Your task to perform on an android device: change notification settings in the gmail app Image 0: 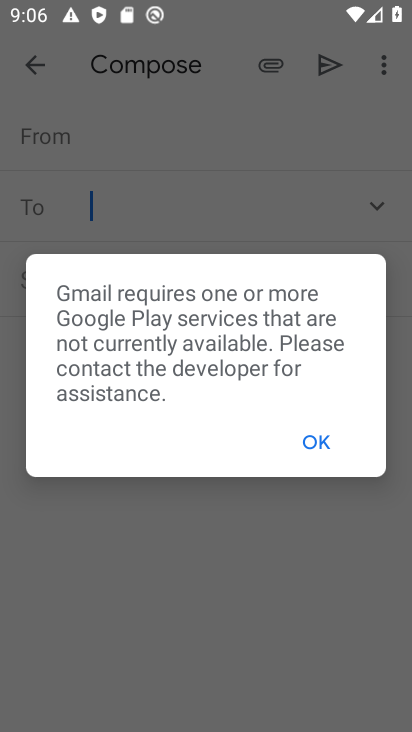
Step 0: press home button
Your task to perform on an android device: change notification settings in the gmail app Image 1: 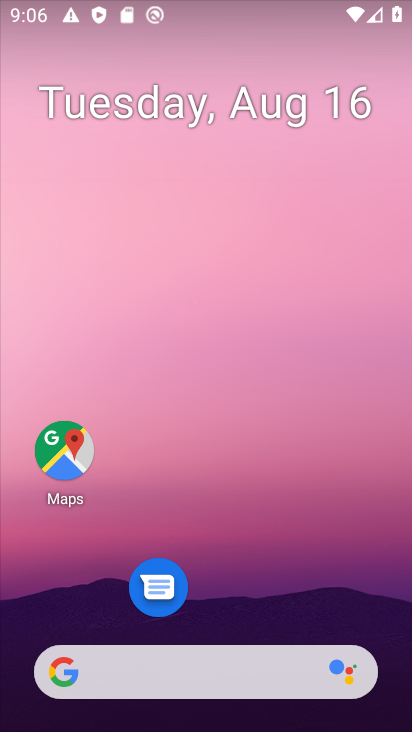
Step 1: drag from (239, 624) to (204, 3)
Your task to perform on an android device: change notification settings in the gmail app Image 2: 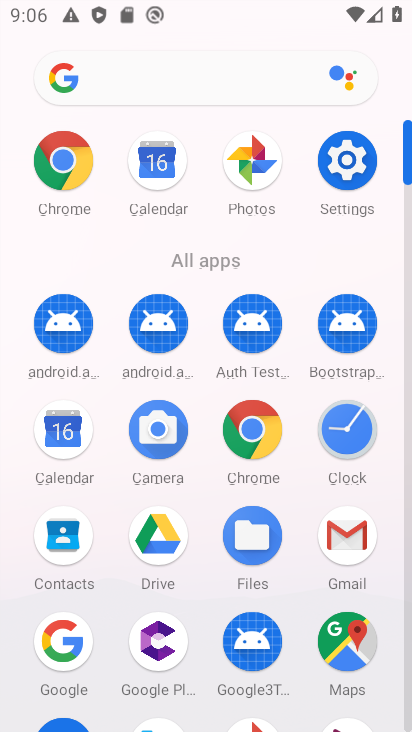
Step 2: click (358, 538)
Your task to perform on an android device: change notification settings in the gmail app Image 3: 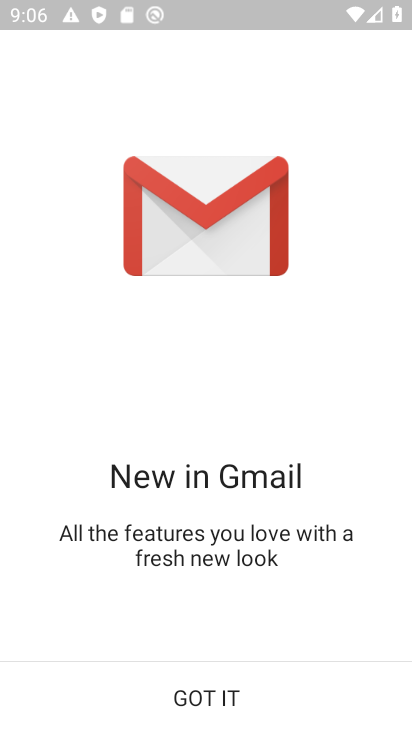
Step 3: click (170, 685)
Your task to perform on an android device: change notification settings in the gmail app Image 4: 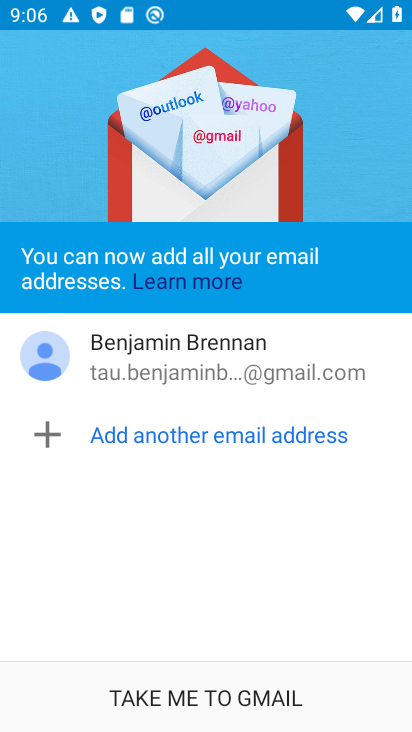
Step 4: click (170, 685)
Your task to perform on an android device: change notification settings in the gmail app Image 5: 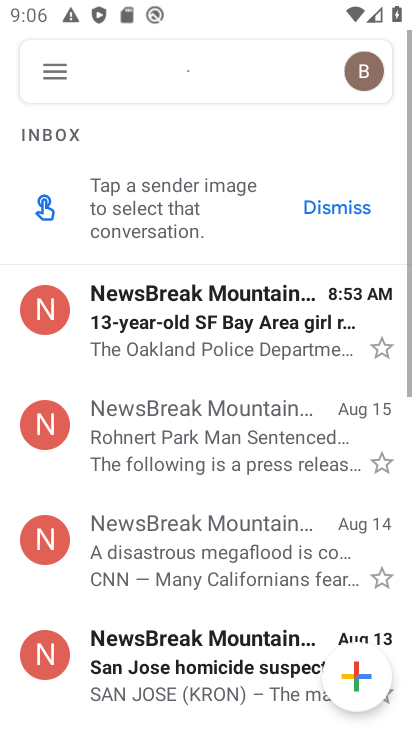
Step 5: click (59, 75)
Your task to perform on an android device: change notification settings in the gmail app Image 6: 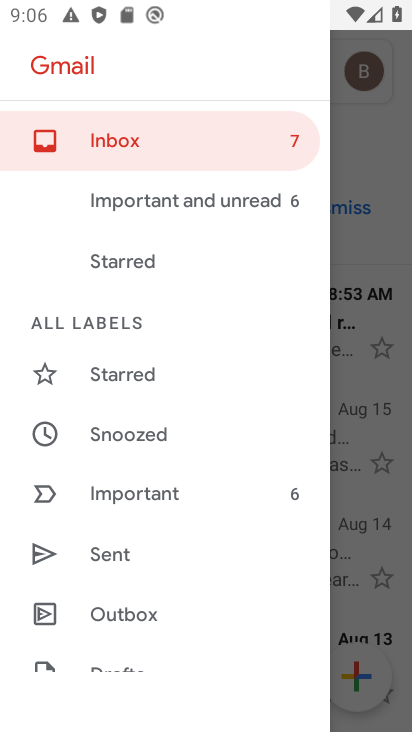
Step 6: drag from (251, 618) to (238, 5)
Your task to perform on an android device: change notification settings in the gmail app Image 7: 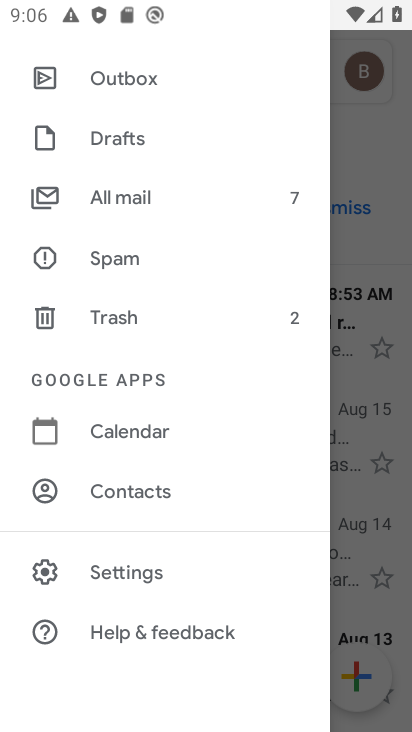
Step 7: click (98, 560)
Your task to perform on an android device: change notification settings in the gmail app Image 8: 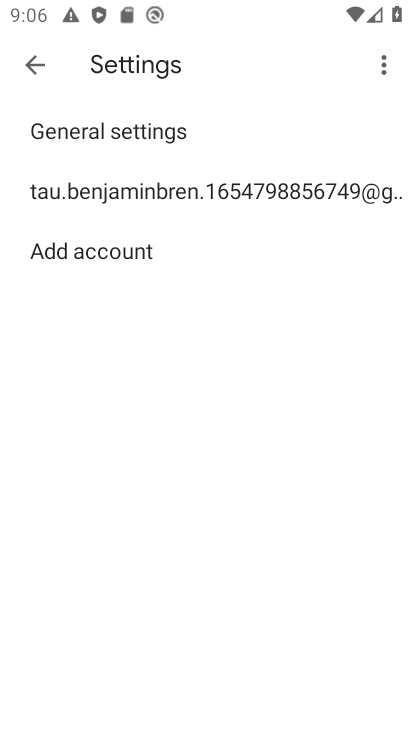
Step 8: click (85, 143)
Your task to perform on an android device: change notification settings in the gmail app Image 9: 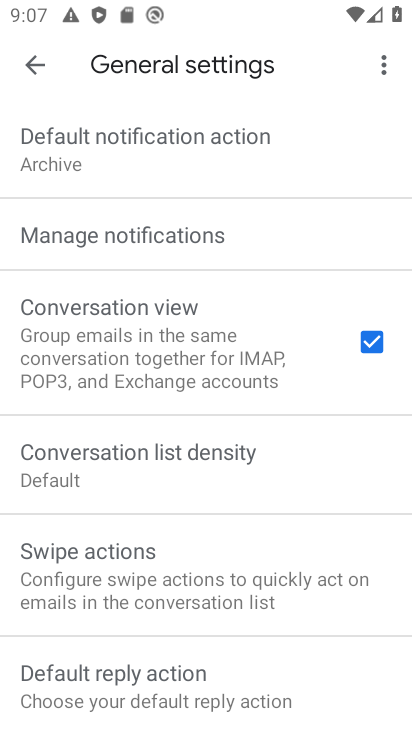
Step 9: click (148, 255)
Your task to perform on an android device: change notification settings in the gmail app Image 10: 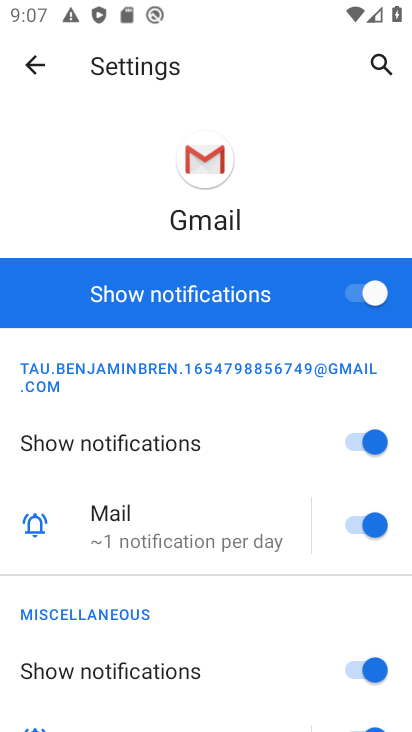
Step 10: task complete